Your task to perform on an android device: Set the phone to "Do not disturb". Image 0: 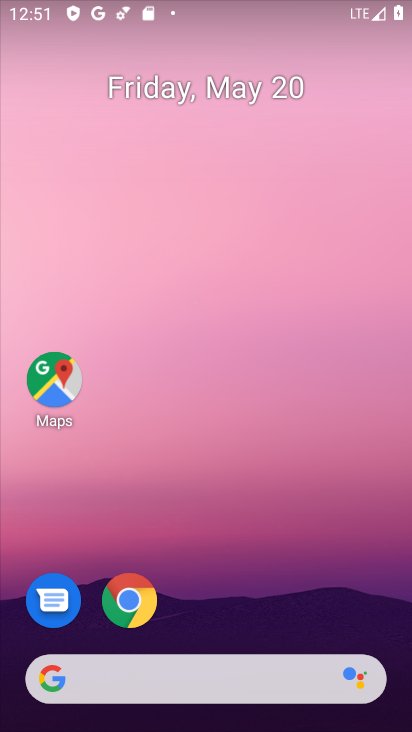
Step 0: drag from (245, 666) to (268, 0)
Your task to perform on an android device: Set the phone to "Do not disturb". Image 1: 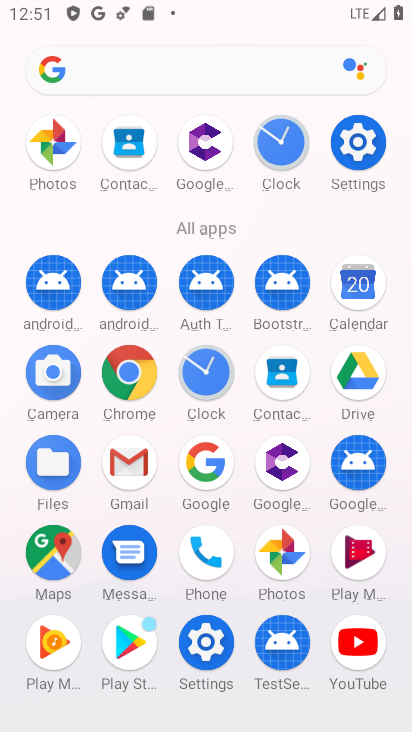
Step 1: click (348, 152)
Your task to perform on an android device: Set the phone to "Do not disturb". Image 2: 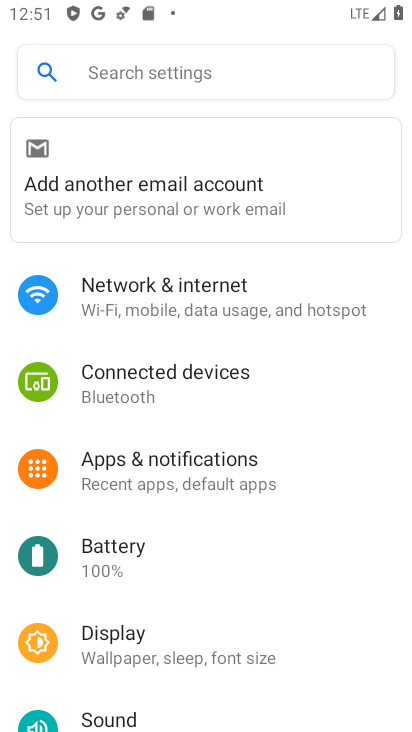
Step 2: click (101, 718)
Your task to perform on an android device: Set the phone to "Do not disturb". Image 3: 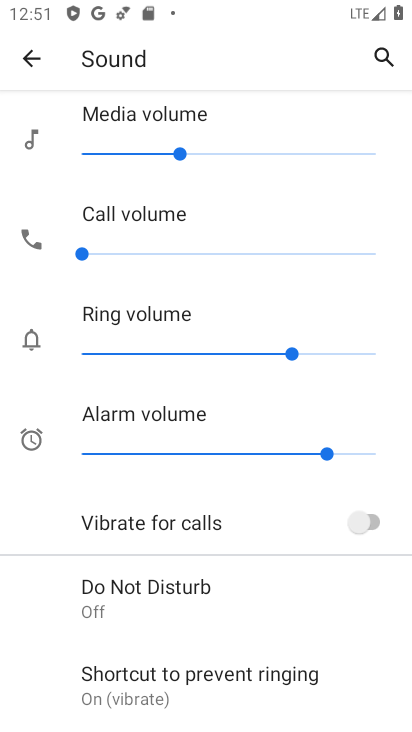
Step 3: click (204, 606)
Your task to perform on an android device: Set the phone to "Do not disturb". Image 4: 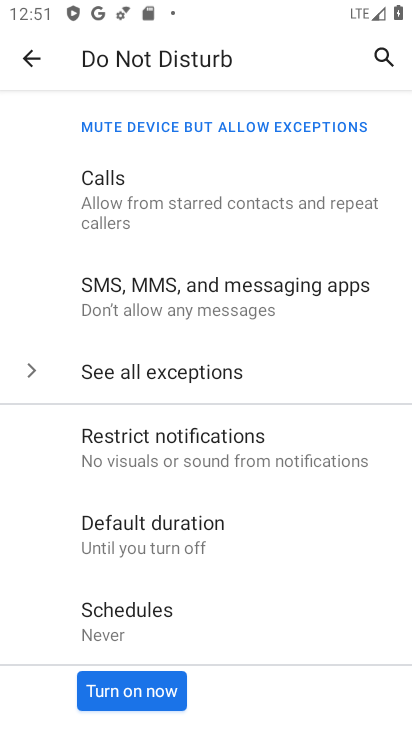
Step 4: click (150, 687)
Your task to perform on an android device: Set the phone to "Do not disturb". Image 5: 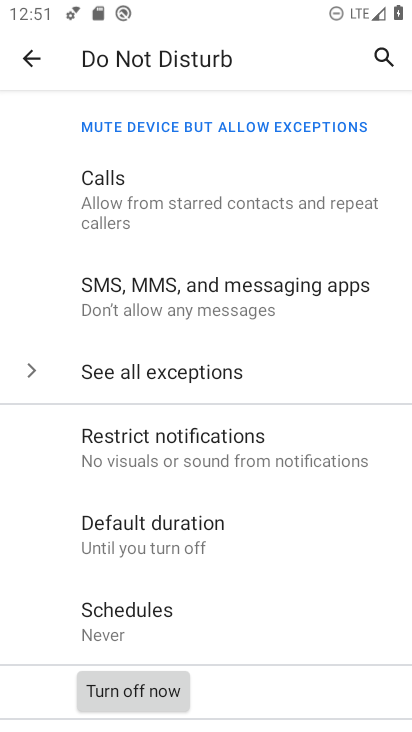
Step 5: task complete